Your task to perform on an android device: Go to battery settings Image 0: 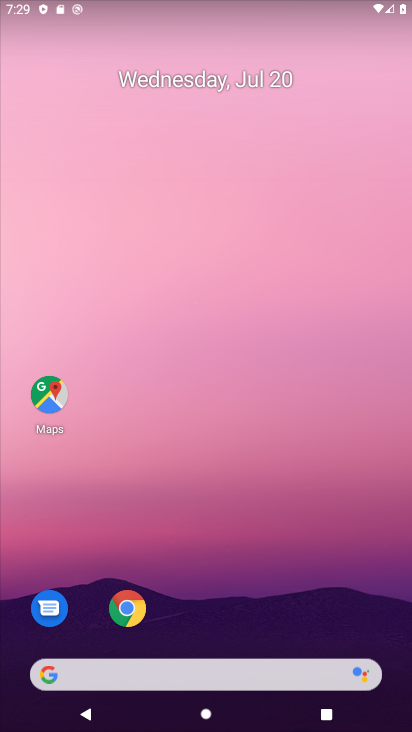
Step 0: drag from (199, 521) to (310, 164)
Your task to perform on an android device: Go to battery settings Image 1: 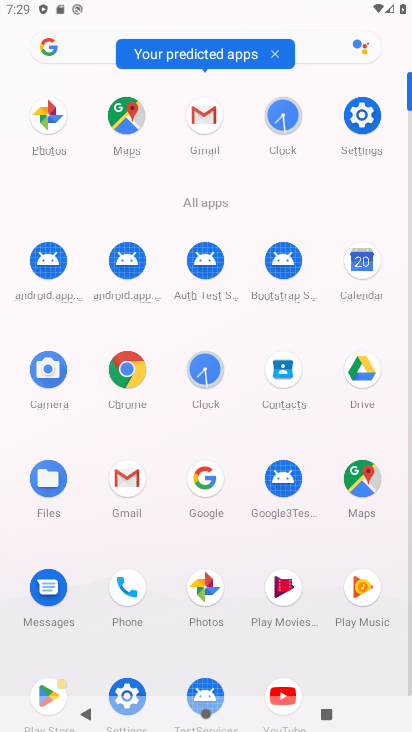
Step 1: click (127, 682)
Your task to perform on an android device: Go to battery settings Image 2: 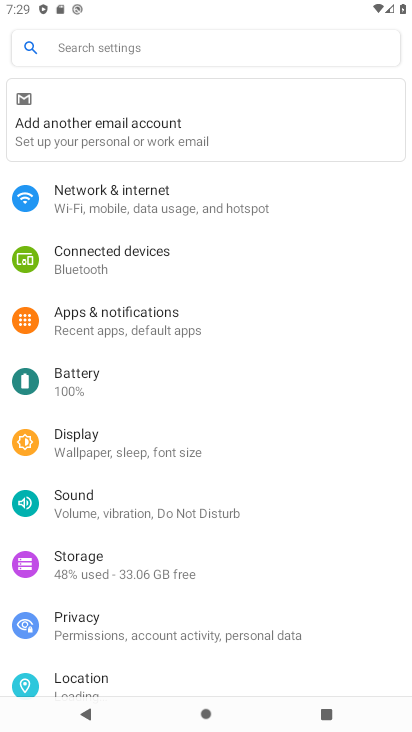
Step 2: click (112, 383)
Your task to perform on an android device: Go to battery settings Image 3: 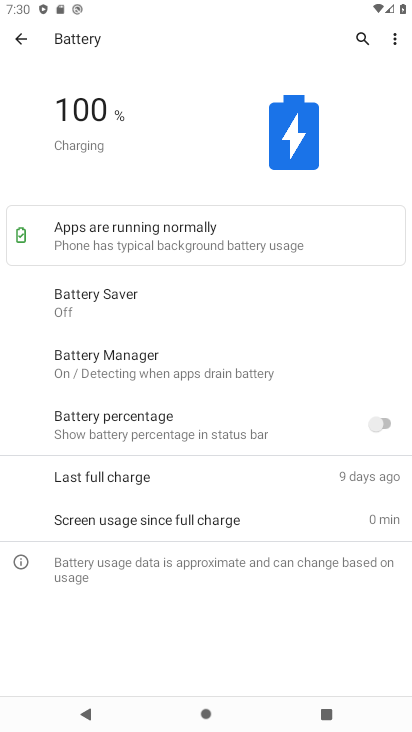
Step 3: task complete